Your task to perform on an android device: allow cookies in the chrome app Image 0: 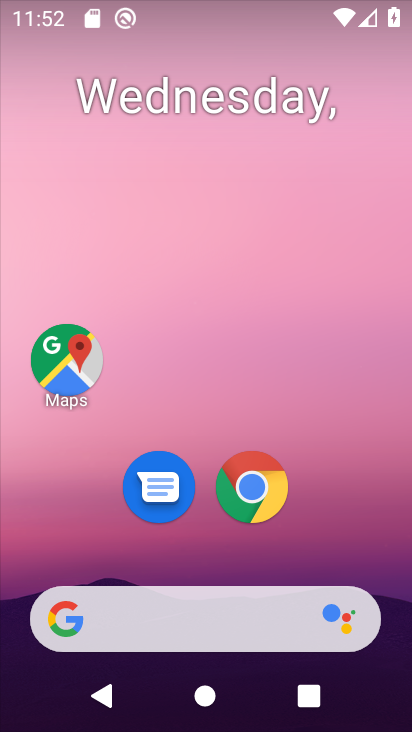
Step 0: drag from (281, 551) to (255, 205)
Your task to perform on an android device: allow cookies in the chrome app Image 1: 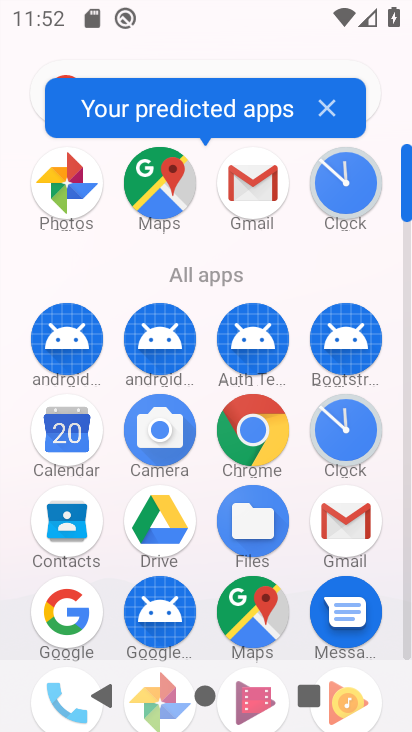
Step 1: click (267, 433)
Your task to perform on an android device: allow cookies in the chrome app Image 2: 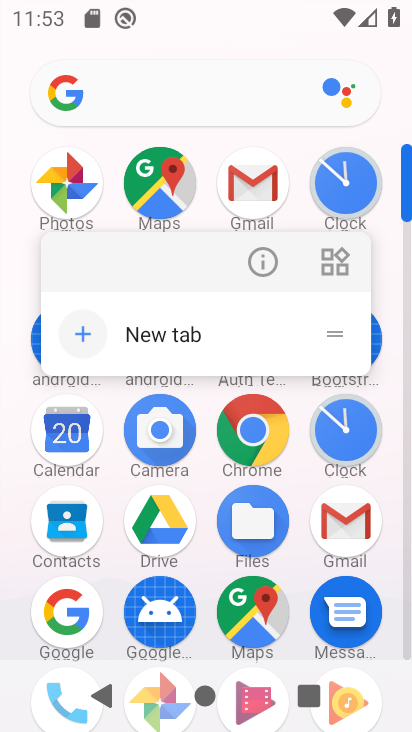
Step 2: click (259, 439)
Your task to perform on an android device: allow cookies in the chrome app Image 3: 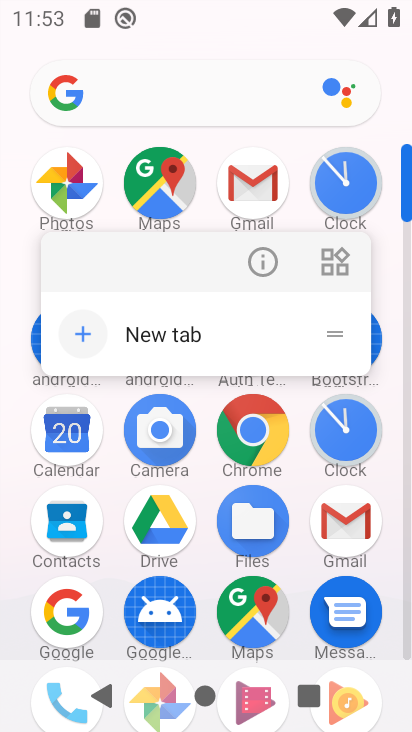
Step 3: click (254, 462)
Your task to perform on an android device: allow cookies in the chrome app Image 4: 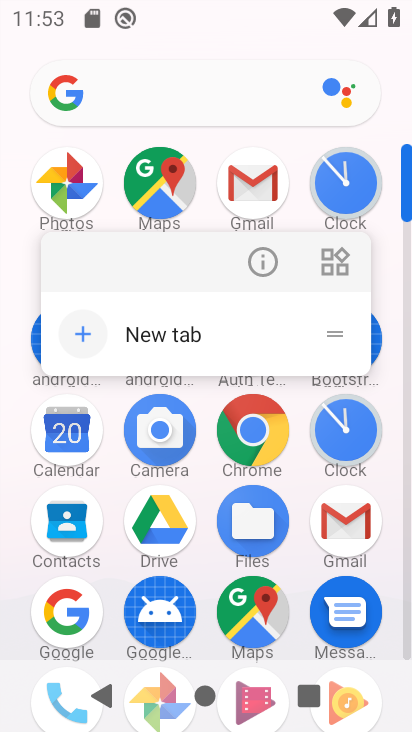
Step 4: click (252, 436)
Your task to perform on an android device: allow cookies in the chrome app Image 5: 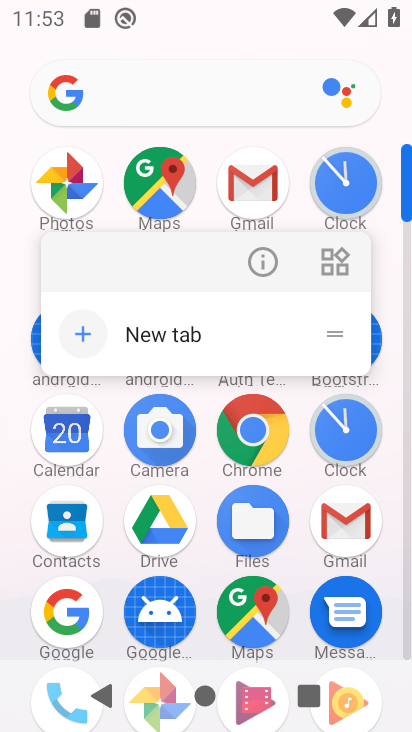
Step 5: click (252, 436)
Your task to perform on an android device: allow cookies in the chrome app Image 6: 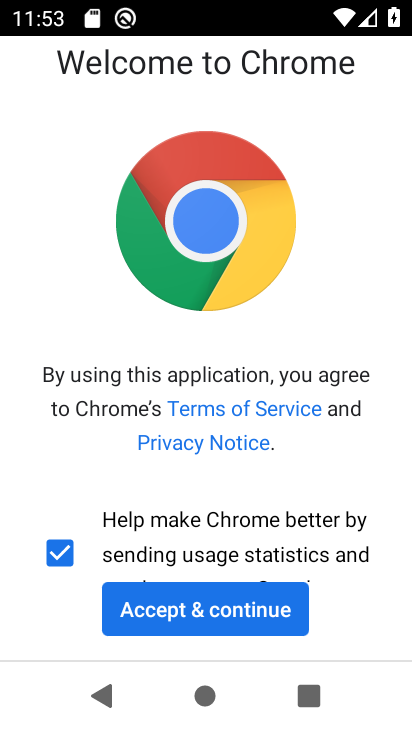
Step 6: click (208, 597)
Your task to perform on an android device: allow cookies in the chrome app Image 7: 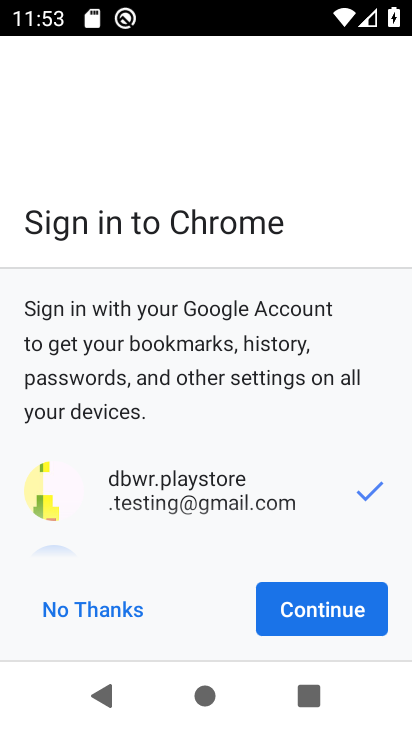
Step 7: click (324, 582)
Your task to perform on an android device: allow cookies in the chrome app Image 8: 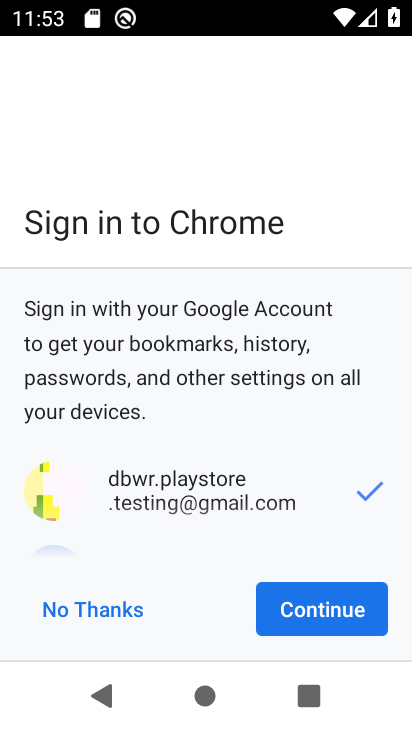
Step 8: click (353, 602)
Your task to perform on an android device: allow cookies in the chrome app Image 9: 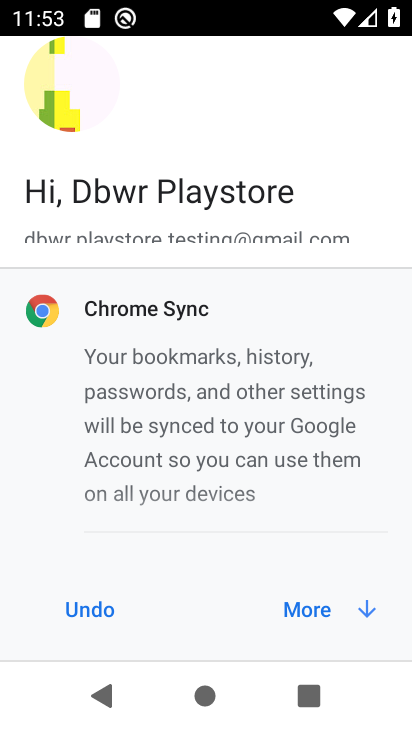
Step 9: click (374, 607)
Your task to perform on an android device: allow cookies in the chrome app Image 10: 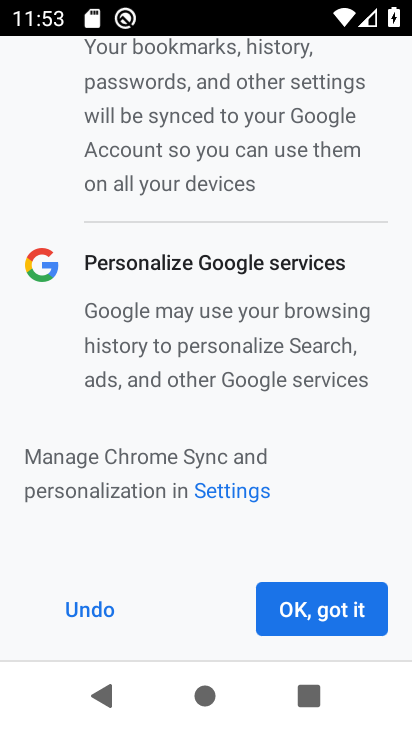
Step 10: click (339, 603)
Your task to perform on an android device: allow cookies in the chrome app Image 11: 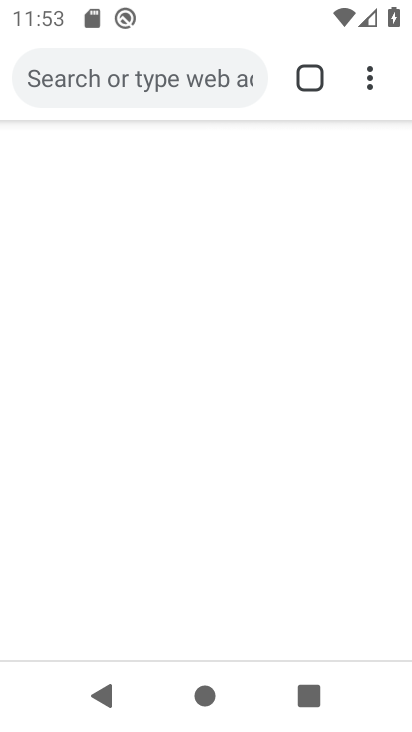
Step 11: drag from (304, 478) to (292, 389)
Your task to perform on an android device: allow cookies in the chrome app Image 12: 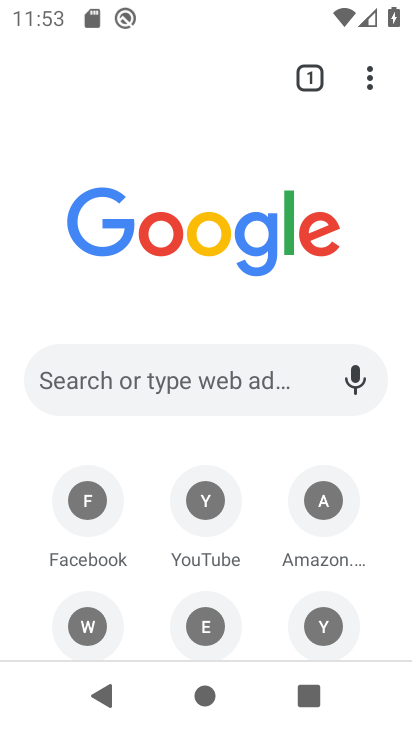
Step 12: click (363, 87)
Your task to perform on an android device: allow cookies in the chrome app Image 13: 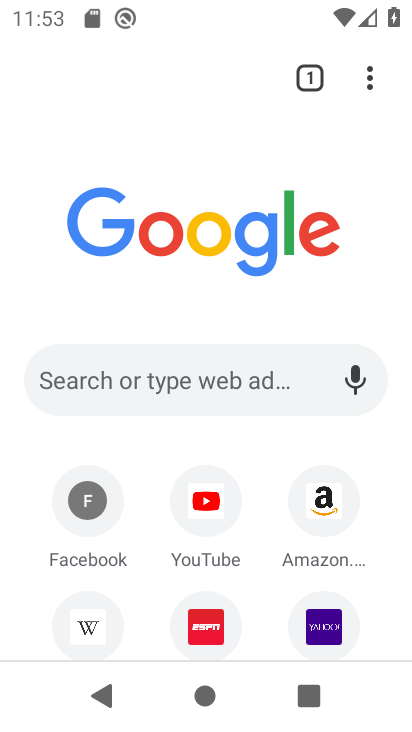
Step 13: click (368, 81)
Your task to perform on an android device: allow cookies in the chrome app Image 14: 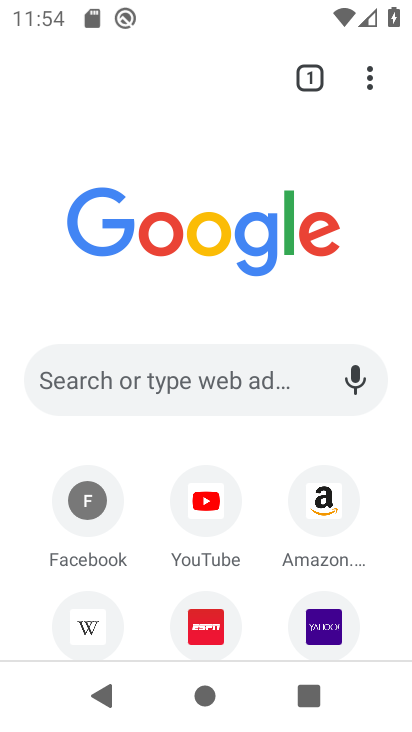
Step 14: click (376, 74)
Your task to perform on an android device: allow cookies in the chrome app Image 15: 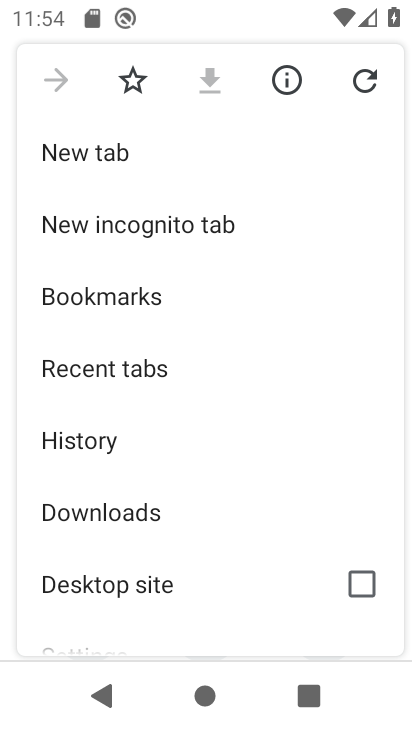
Step 15: drag from (151, 489) to (100, 206)
Your task to perform on an android device: allow cookies in the chrome app Image 16: 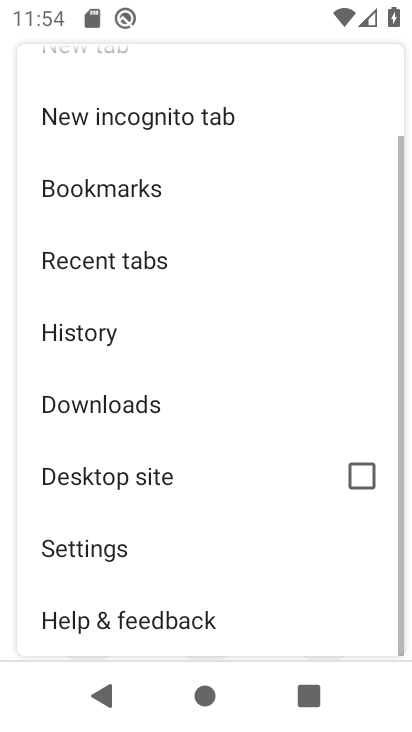
Step 16: click (106, 549)
Your task to perform on an android device: allow cookies in the chrome app Image 17: 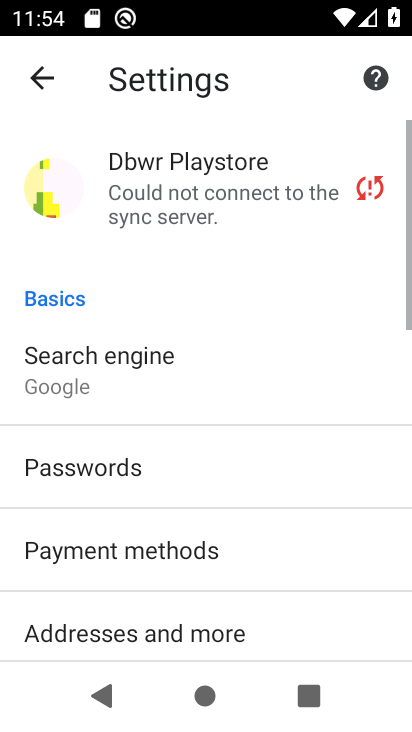
Step 17: drag from (137, 594) to (226, 176)
Your task to perform on an android device: allow cookies in the chrome app Image 18: 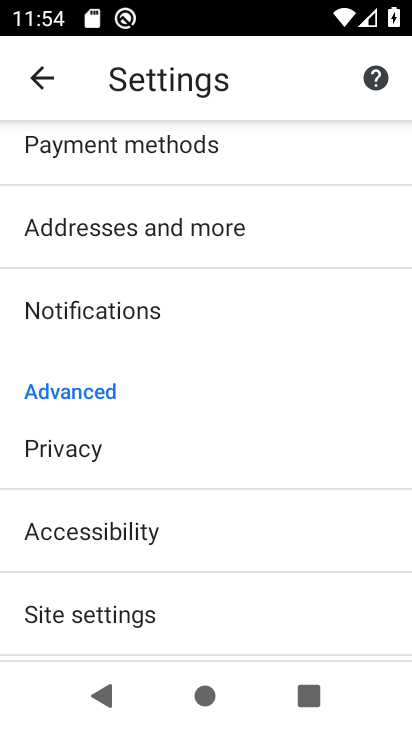
Step 18: click (125, 609)
Your task to perform on an android device: allow cookies in the chrome app Image 19: 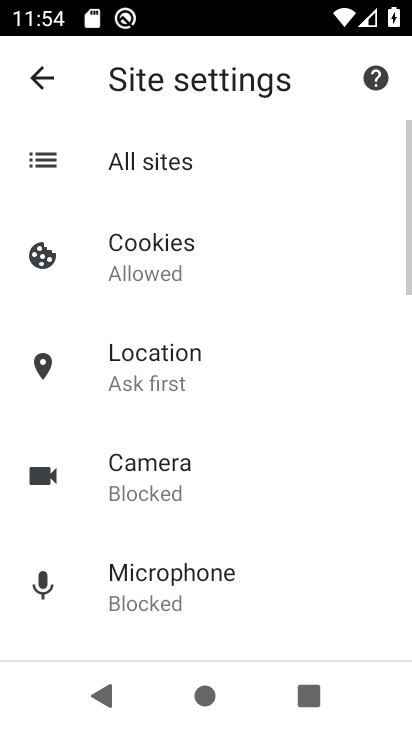
Step 19: drag from (222, 538) to (257, 424)
Your task to perform on an android device: allow cookies in the chrome app Image 20: 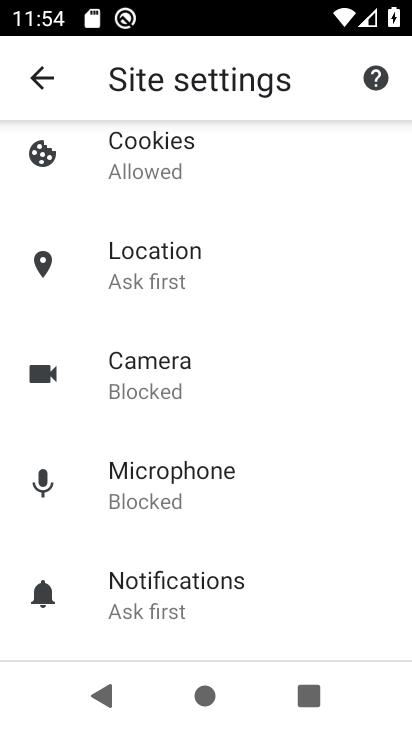
Step 20: click (171, 184)
Your task to perform on an android device: allow cookies in the chrome app Image 21: 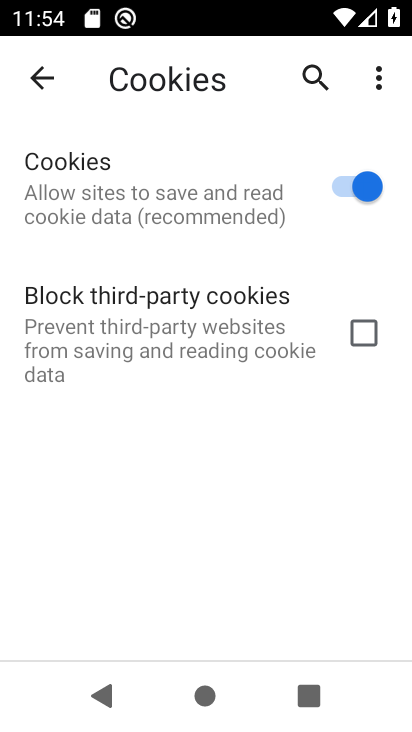
Step 21: click (250, 196)
Your task to perform on an android device: allow cookies in the chrome app Image 22: 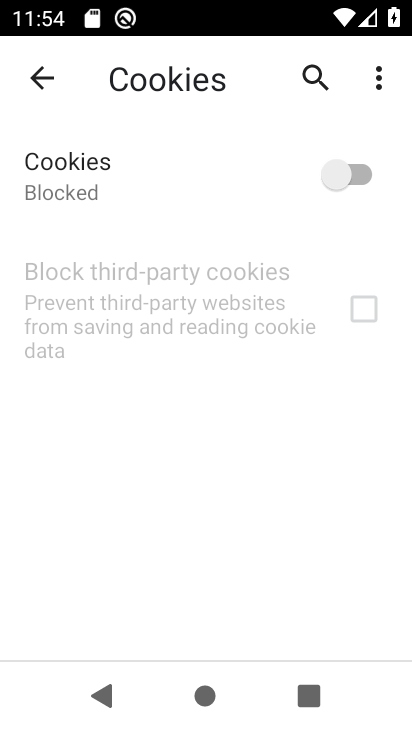
Step 22: click (249, 196)
Your task to perform on an android device: allow cookies in the chrome app Image 23: 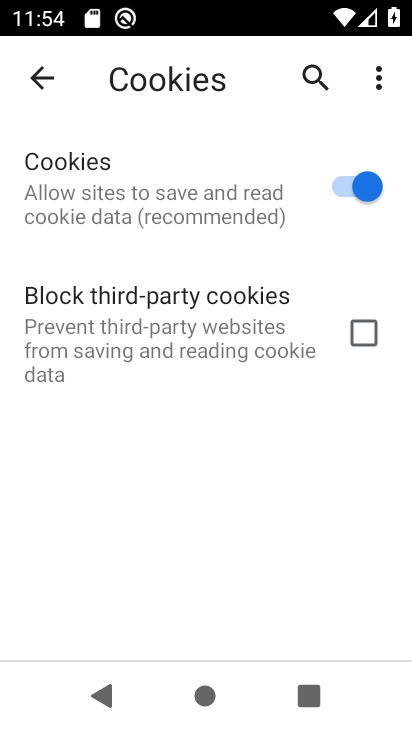
Step 23: task complete